Your task to perform on an android device: Open Chrome and go to settings Image 0: 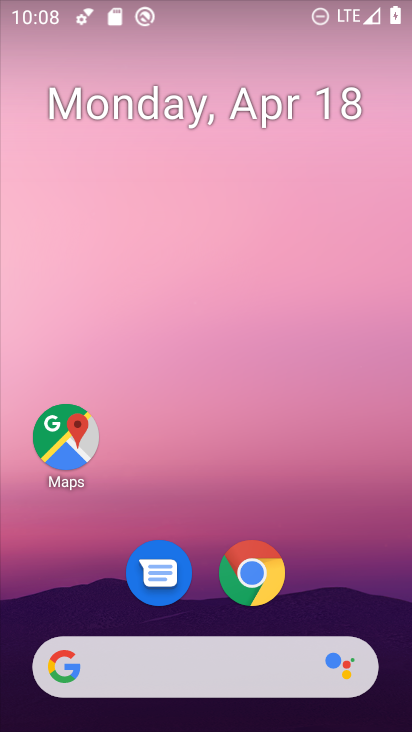
Step 0: drag from (347, 594) to (321, 70)
Your task to perform on an android device: Open Chrome and go to settings Image 1: 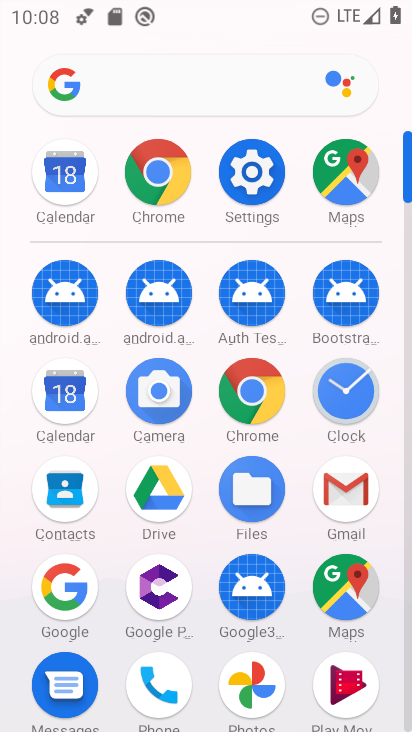
Step 1: click (146, 170)
Your task to perform on an android device: Open Chrome and go to settings Image 2: 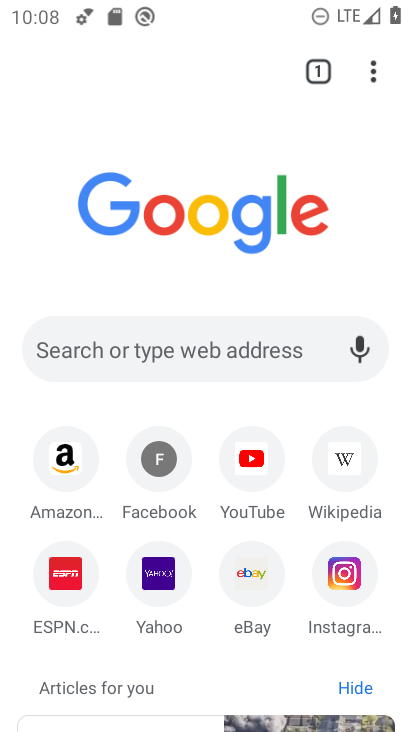
Step 2: click (376, 69)
Your task to perform on an android device: Open Chrome and go to settings Image 3: 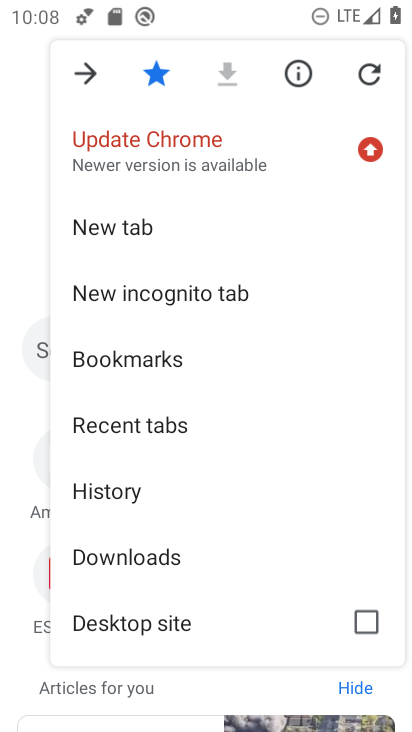
Step 3: drag from (149, 573) to (177, 190)
Your task to perform on an android device: Open Chrome and go to settings Image 4: 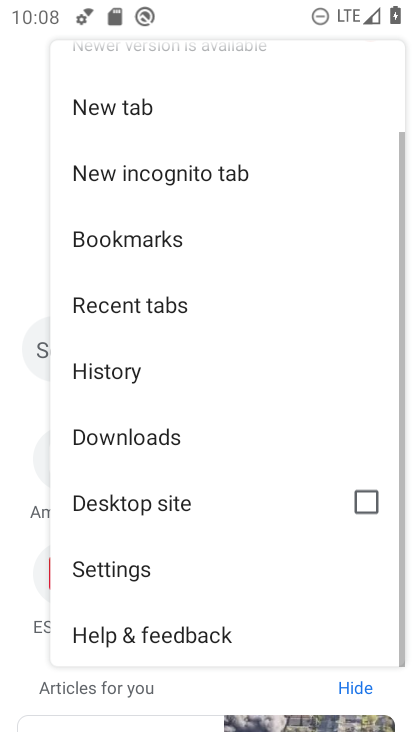
Step 4: click (166, 558)
Your task to perform on an android device: Open Chrome and go to settings Image 5: 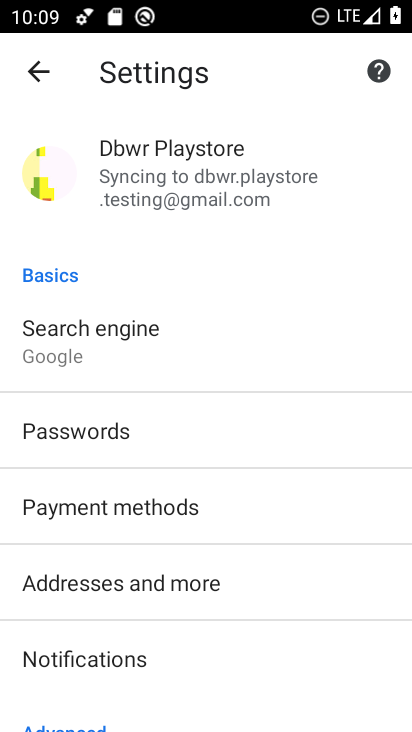
Step 5: task complete